Your task to perform on an android device: open sync settings in chrome Image 0: 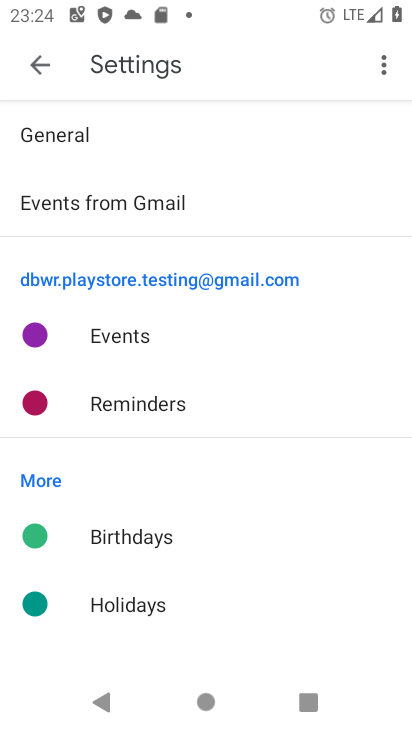
Step 0: press home button
Your task to perform on an android device: open sync settings in chrome Image 1: 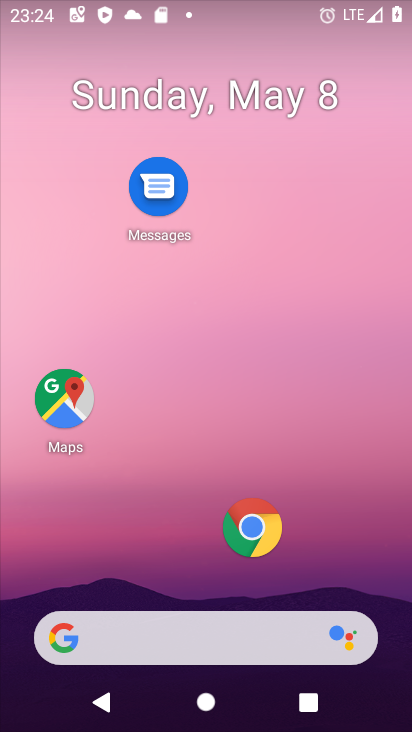
Step 1: click (250, 536)
Your task to perform on an android device: open sync settings in chrome Image 2: 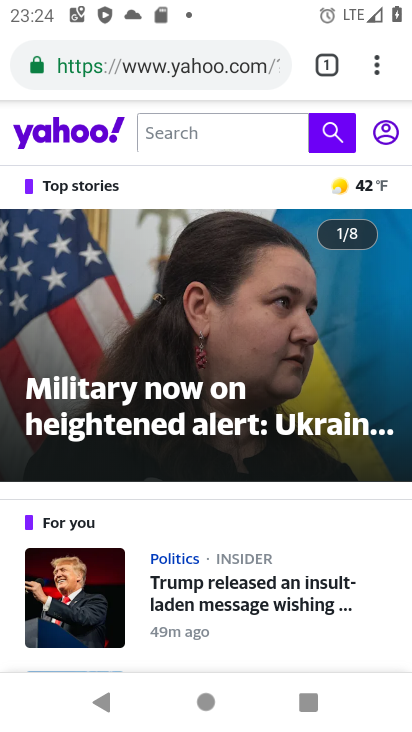
Step 2: click (372, 62)
Your task to perform on an android device: open sync settings in chrome Image 3: 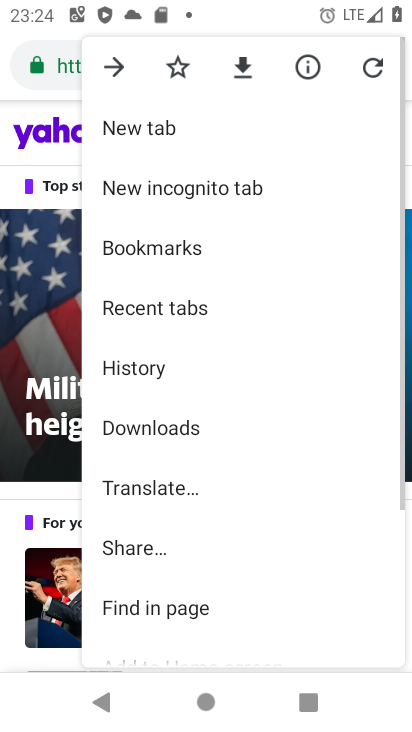
Step 3: drag from (215, 584) to (221, 181)
Your task to perform on an android device: open sync settings in chrome Image 4: 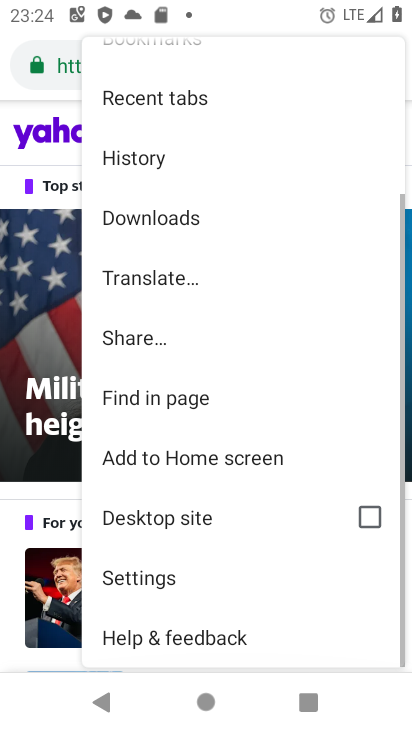
Step 4: click (168, 573)
Your task to perform on an android device: open sync settings in chrome Image 5: 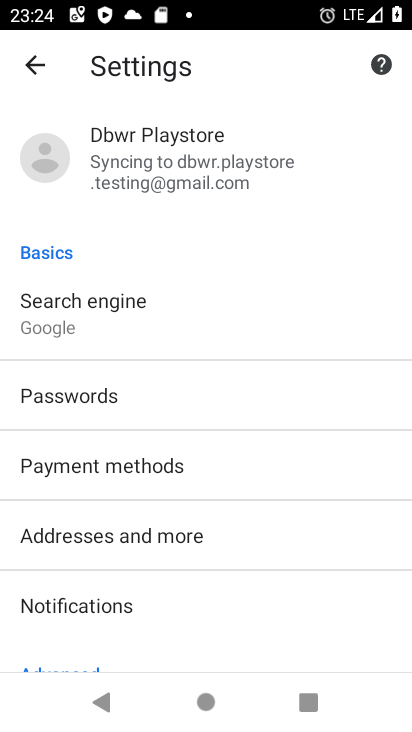
Step 5: drag from (194, 587) to (217, 221)
Your task to perform on an android device: open sync settings in chrome Image 6: 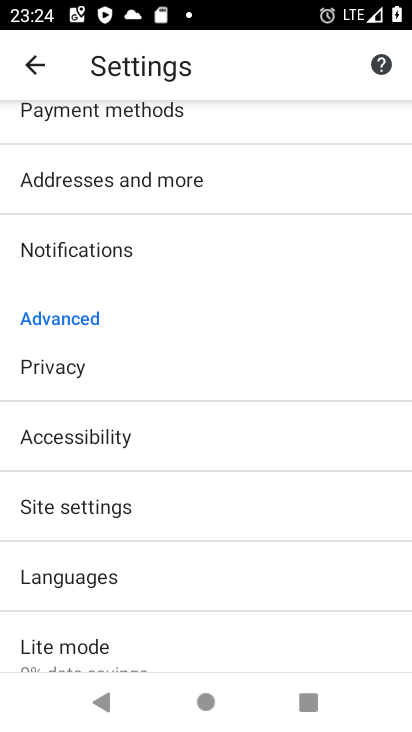
Step 6: click (86, 506)
Your task to perform on an android device: open sync settings in chrome Image 7: 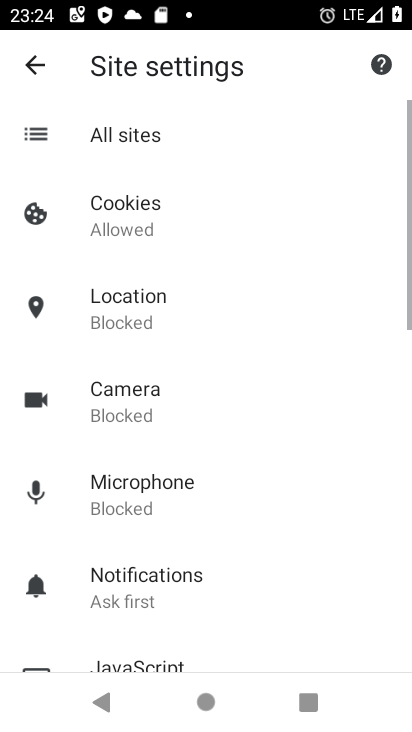
Step 7: drag from (195, 420) to (210, 125)
Your task to perform on an android device: open sync settings in chrome Image 8: 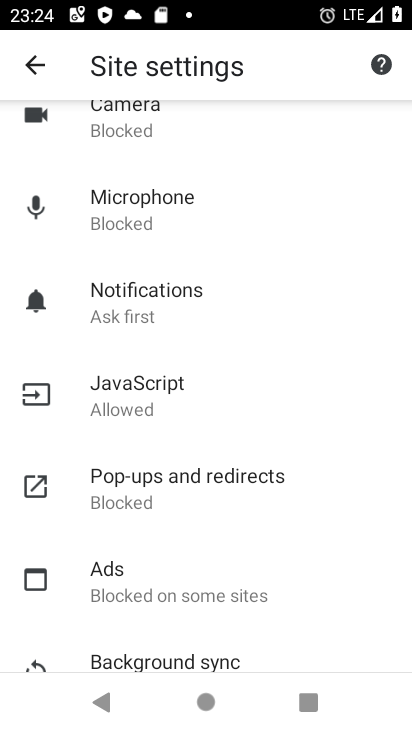
Step 8: click (170, 661)
Your task to perform on an android device: open sync settings in chrome Image 9: 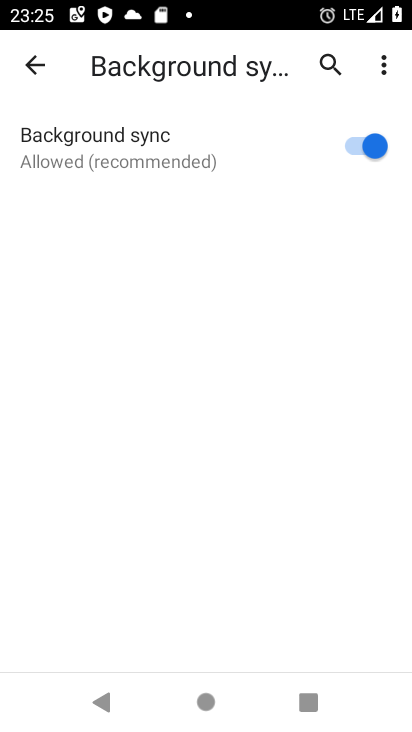
Step 9: task complete